Your task to perform on an android device: Open privacy settings Image 0: 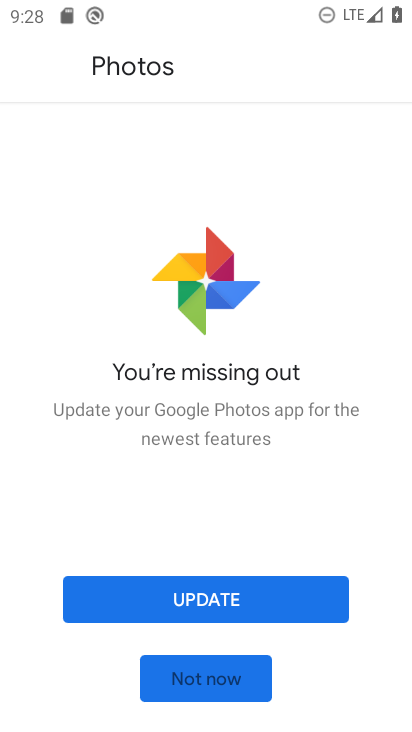
Step 0: press home button
Your task to perform on an android device: Open privacy settings Image 1: 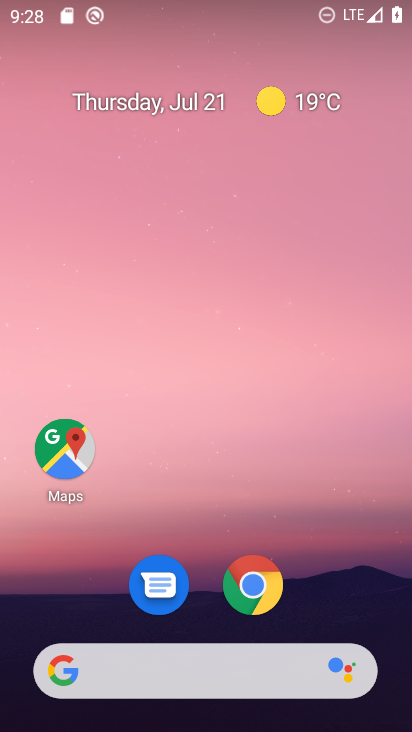
Step 1: drag from (336, 586) to (339, 10)
Your task to perform on an android device: Open privacy settings Image 2: 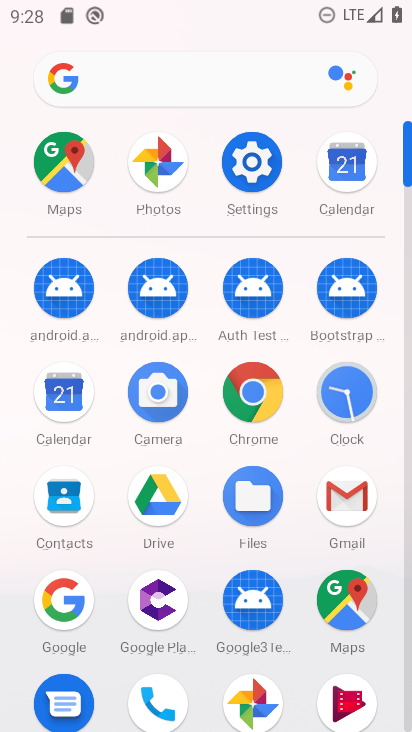
Step 2: click (258, 162)
Your task to perform on an android device: Open privacy settings Image 3: 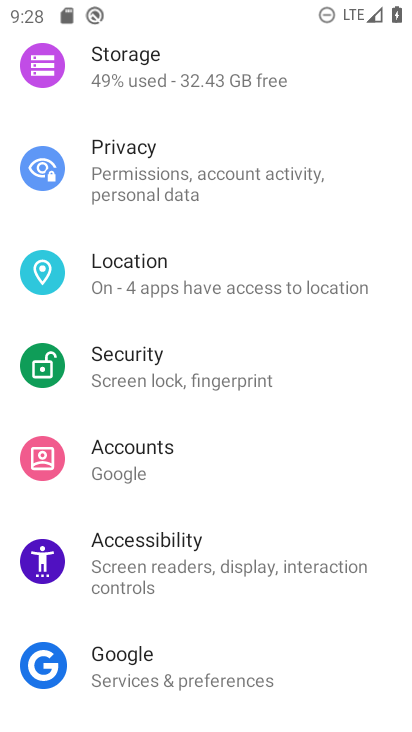
Step 3: click (216, 173)
Your task to perform on an android device: Open privacy settings Image 4: 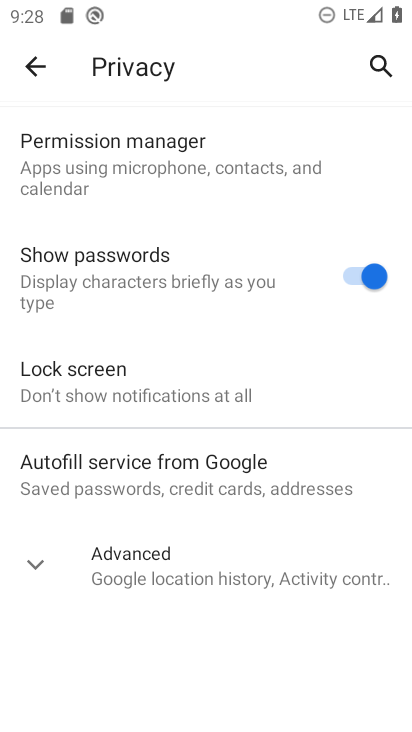
Step 4: task complete